Your task to perform on an android device: change notifications settings Image 0: 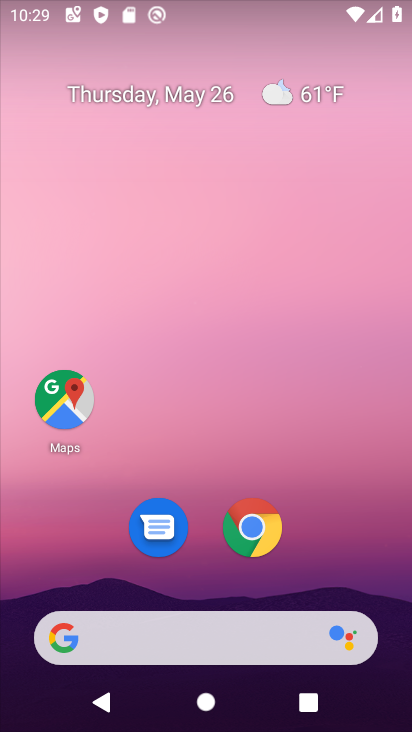
Step 0: drag from (184, 575) to (184, 41)
Your task to perform on an android device: change notifications settings Image 1: 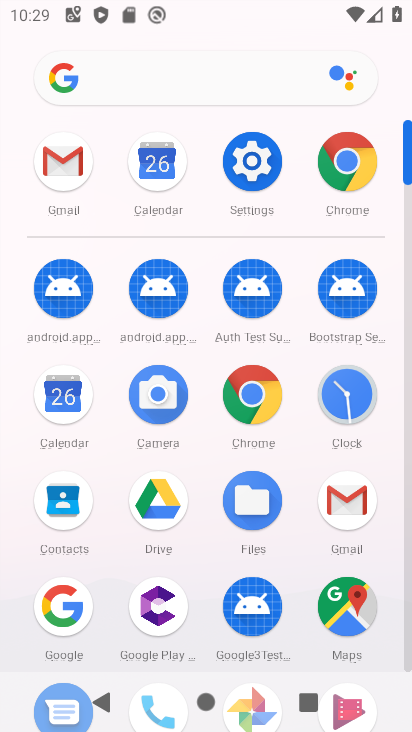
Step 1: click (245, 167)
Your task to perform on an android device: change notifications settings Image 2: 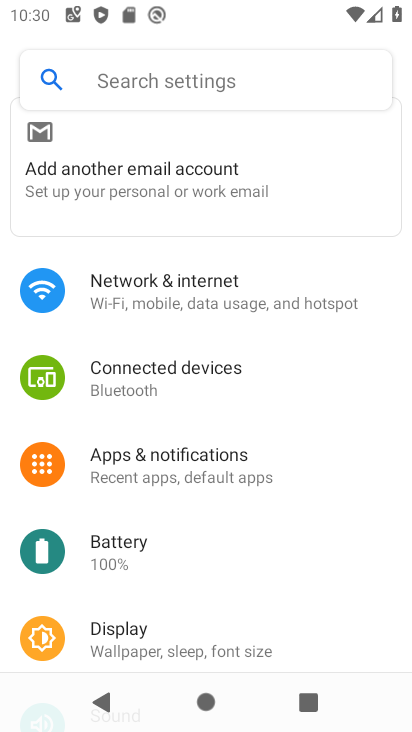
Step 2: click (120, 445)
Your task to perform on an android device: change notifications settings Image 3: 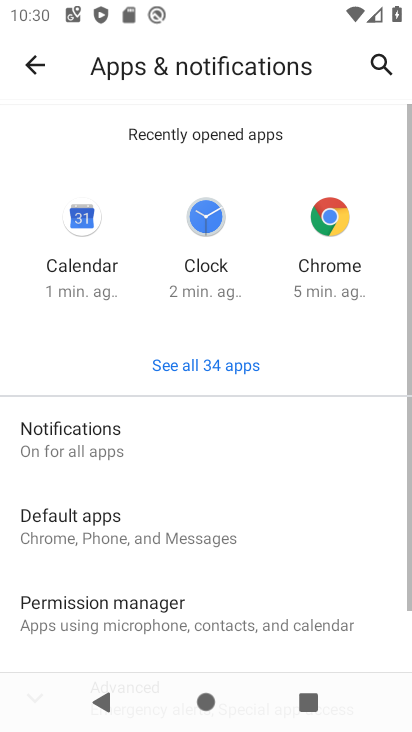
Step 3: click (143, 439)
Your task to perform on an android device: change notifications settings Image 4: 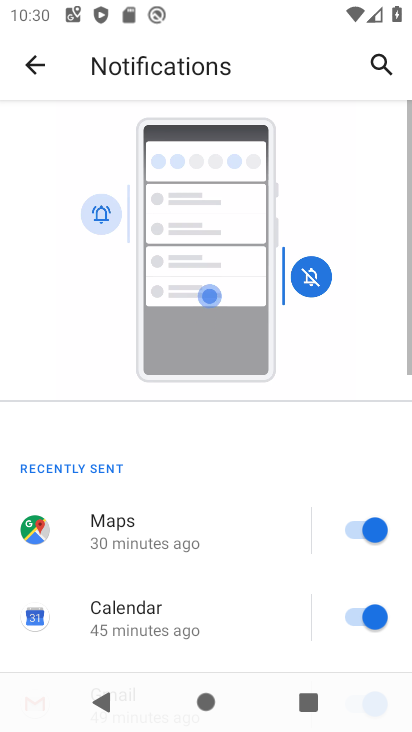
Step 4: drag from (240, 560) to (238, 13)
Your task to perform on an android device: change notifications settings Image 5: 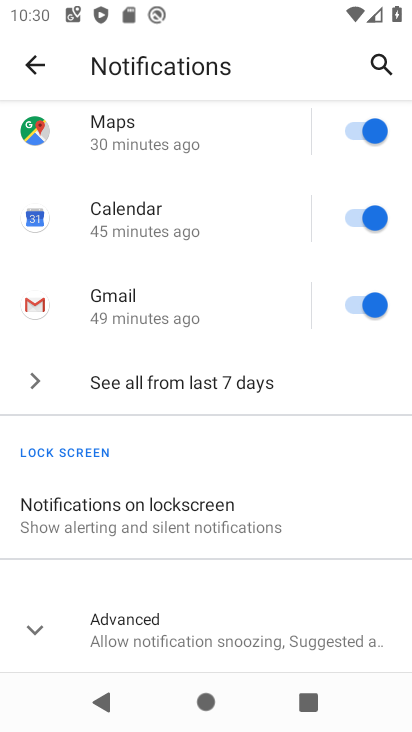
Step 5: click (200, 618)
Your task to perform on an android device: change notifications settings Image 6: 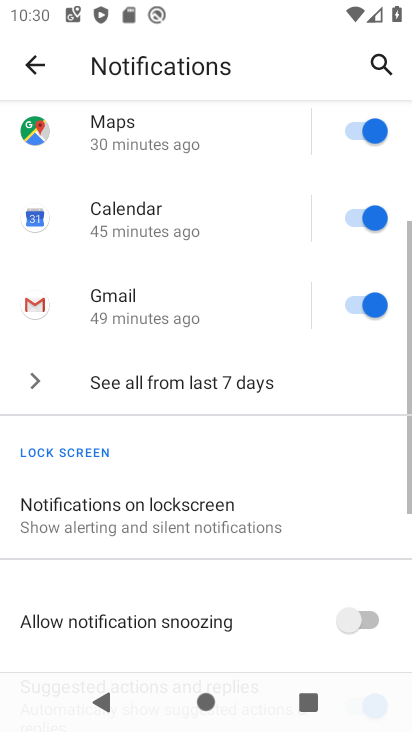
Step 6: drag from (225, 535) to (225, 181)
Your task to perform on an android device: change notifications settings Image 7: 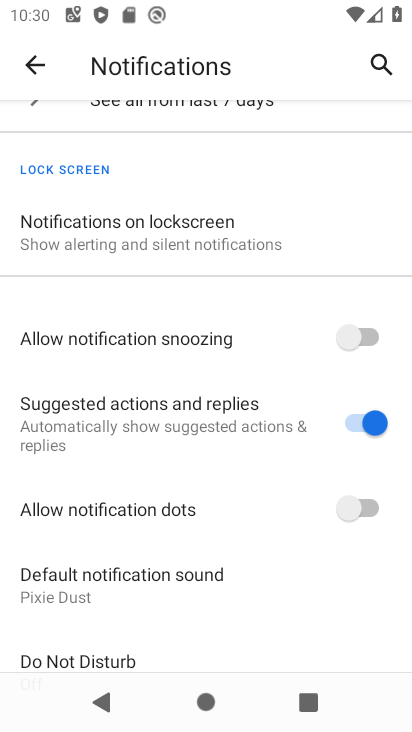
Step 7: click (356, 352)
Your task to perform on an android device: change notifications settings Image 8: 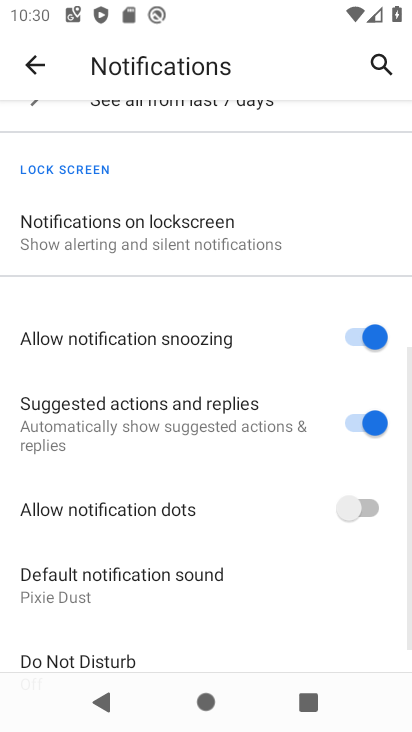
Step 8: task complete